Your task to perform on an android device: read, delete, or share a saved page in the chrome app Image 0: 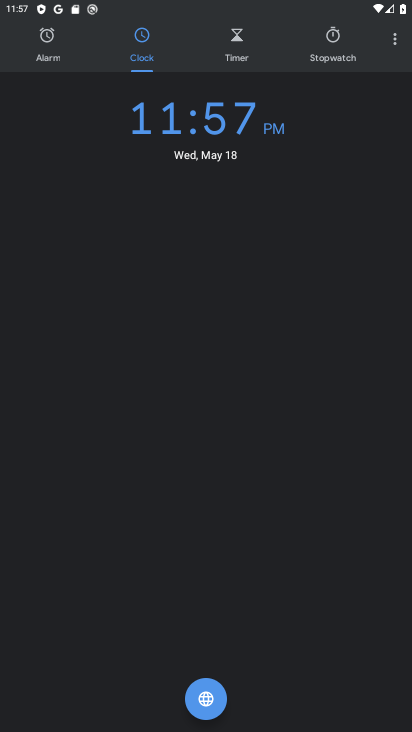
Step 0: press home button
Your task to perform on an android device: read, delete, or share a saved page in the chrome app Image 1: 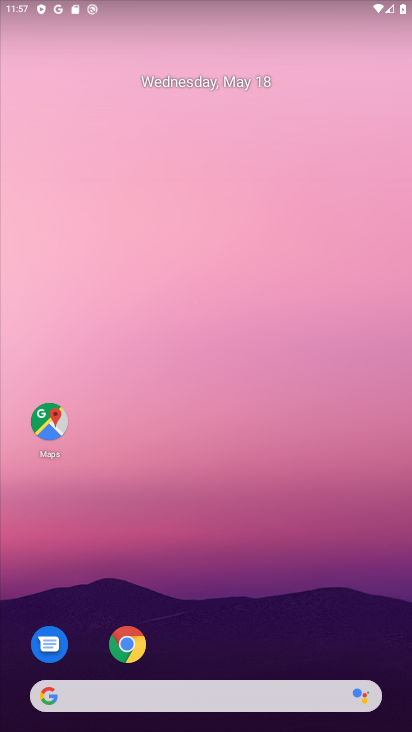
Step 1: drag from (346, 608) to (357, 84)
Your task to perform on an android device: read, delete, or share a saved page in the chrome app Image 2: 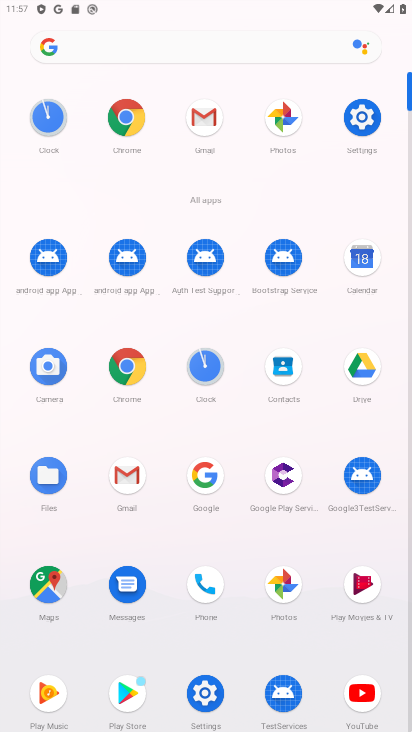
Step 2: click (138, 370)
Your task to perform on an android device: read, delete, or share a saved page in the chrome app Image 3: 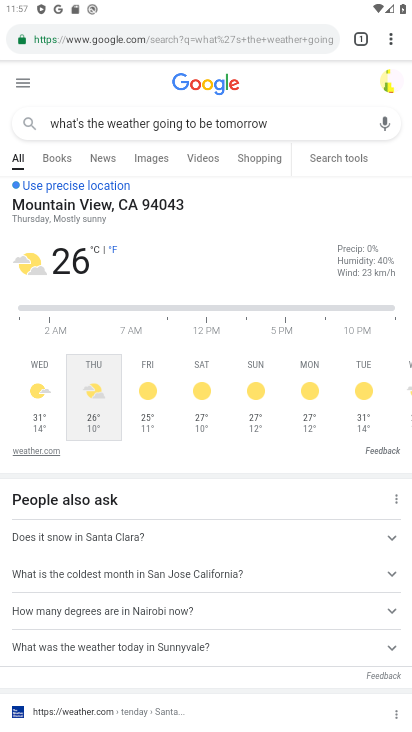
Step 3: task complete